Your task to perform on an android device: toggle notifications settings in the gmail app Image 0: 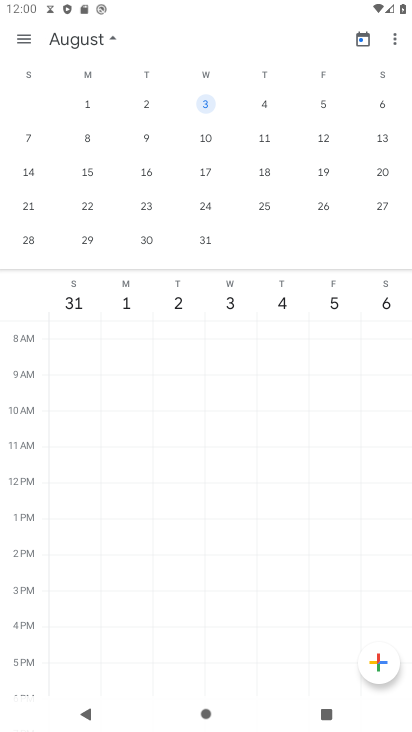
Step 0: press home button
Your task to perform on an android device: toggle notifications settings in the gmail app Image 1: 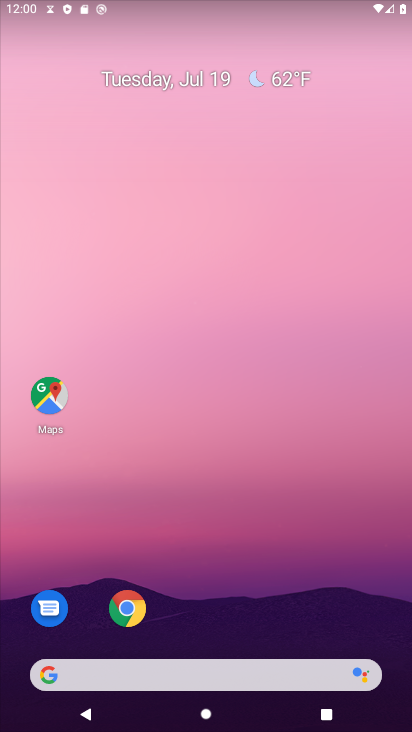
Step 1: drag from (306, 611) to (258, 127)
Your task to perform on an android device: toggle notifications settings in the gmail app Image 2: 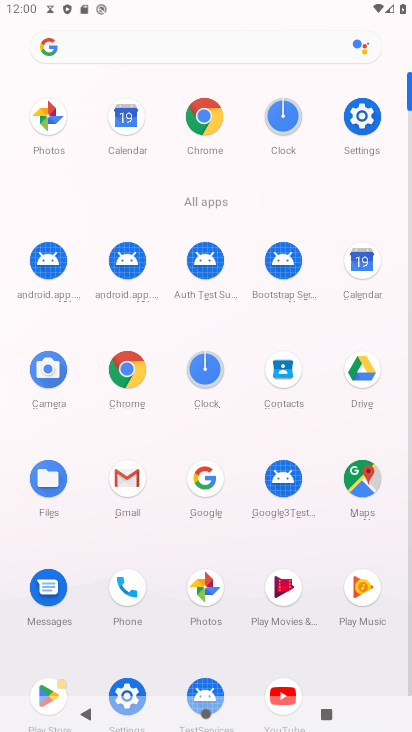
Step 2: click (131, 480)
Your task to perform on an android device: toggle notifications settings in the gmail app Image 3: 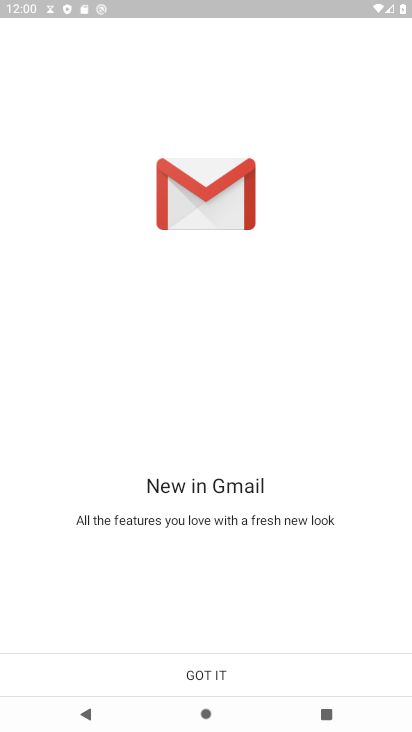
Step 3: click (203, 676)
Your task to perform on an android device: toggle notifications settings in the gmail app Image 4: 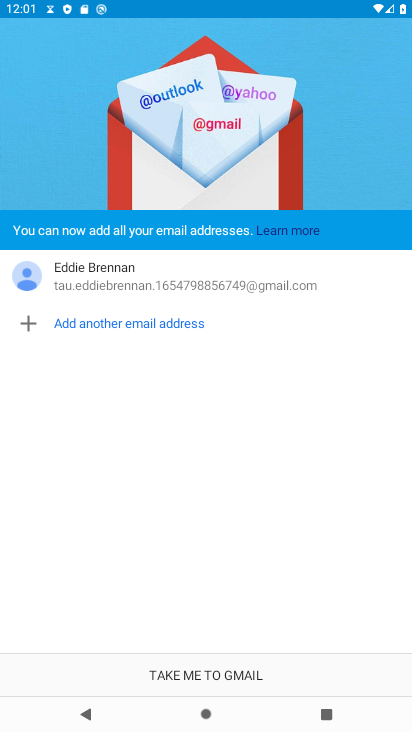
Step 4: click (245, 676)
Your task to perform on an android device: toggle notifications settings in the gmail app Image 5: 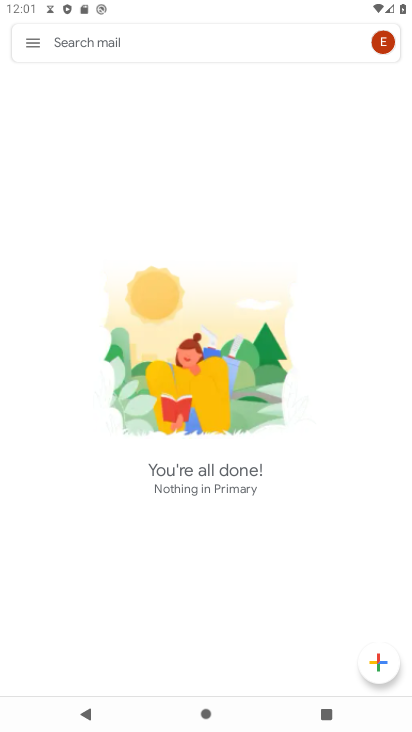
Step 5: click (28, 39)
Your task to perform on an android device: toggle notifications settings in the gmail app Image 6: 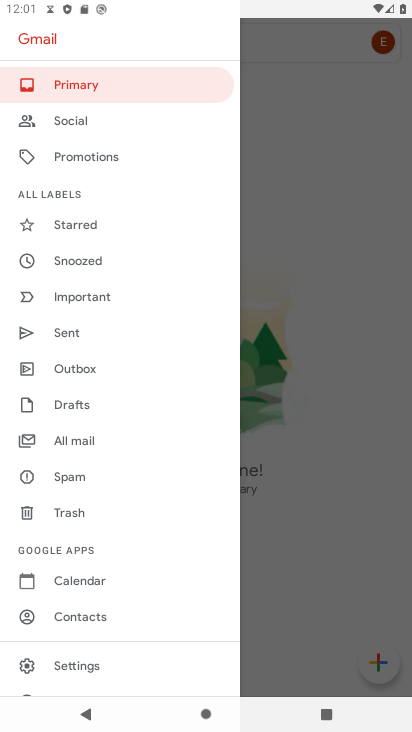
Step 6: click (86, 659)
Your task to perform on an android device: toggle notifications settings in the gmail app Image 7: 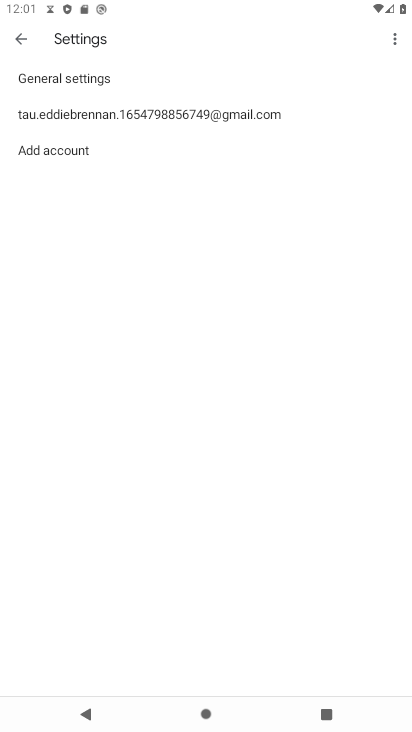
Step 7: click (212, 120)
Your task to perform on an android device: toggle notifications settings in the gmail app Image 8: 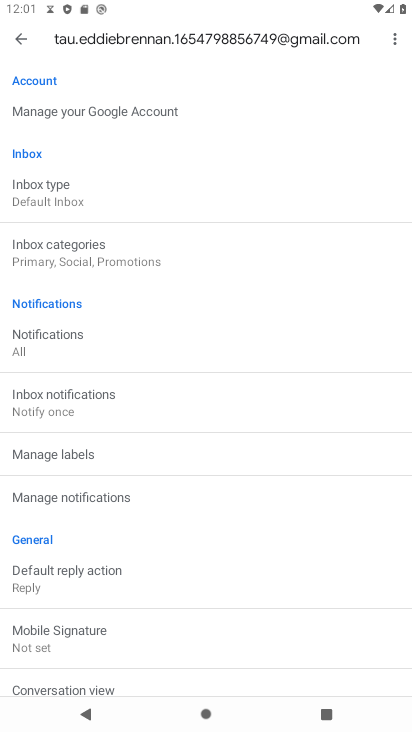
Step 8: click (139, 498)
Your task to perform on an android device: toggle notifications settings in the gmail app Image 9: 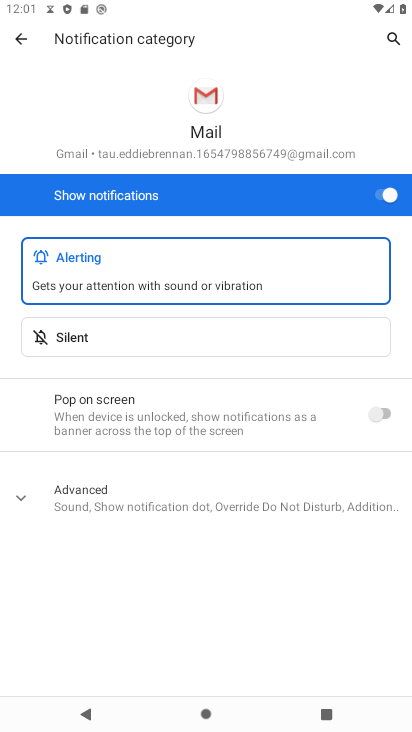
Step 9: click (208, 343)
Your task to perform on an android device: toggle notifications settings in the gmail app Image 10: 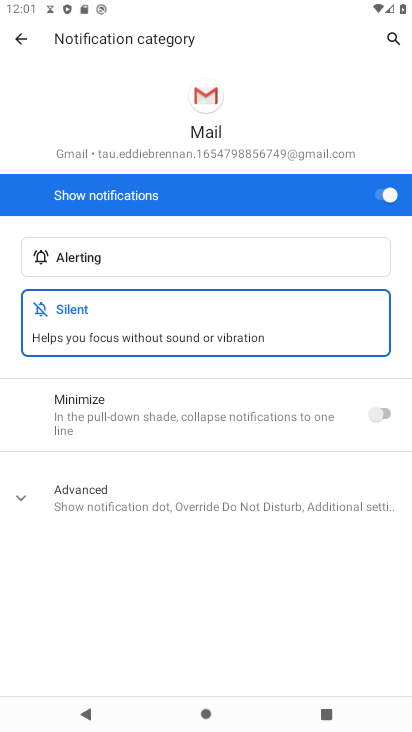
Step 10: click (384, 419)
Your task to perform on an android device: toggle notifications settings in the gmail app Image 11: 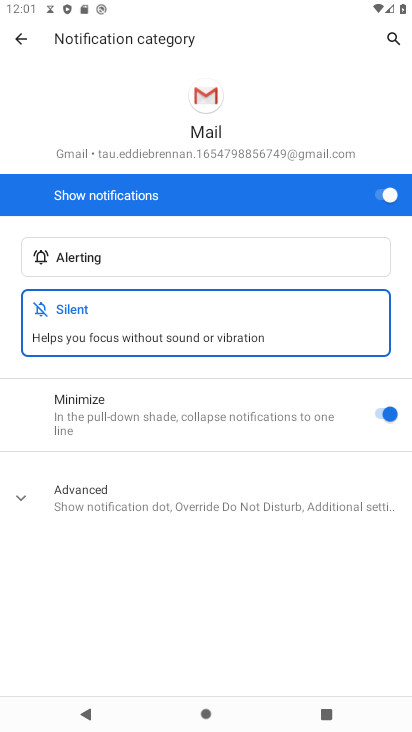
Step 11: task complete